Your task to perform on an android device: change your default location settings in chrome Image 0: 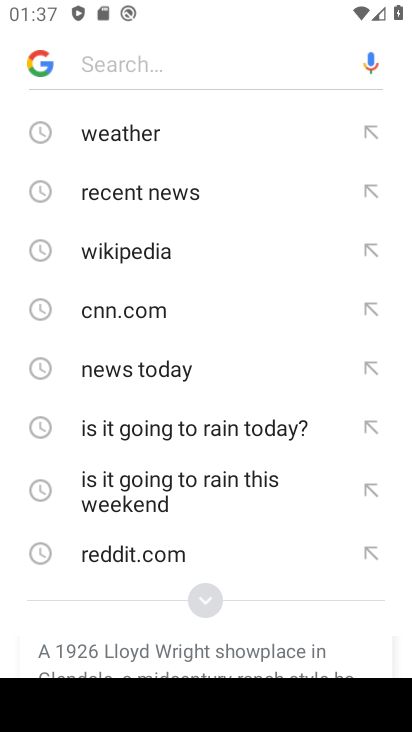
Step 0: press home button
Your task to perform on an android device: change your default location settings in chrome Image 1: 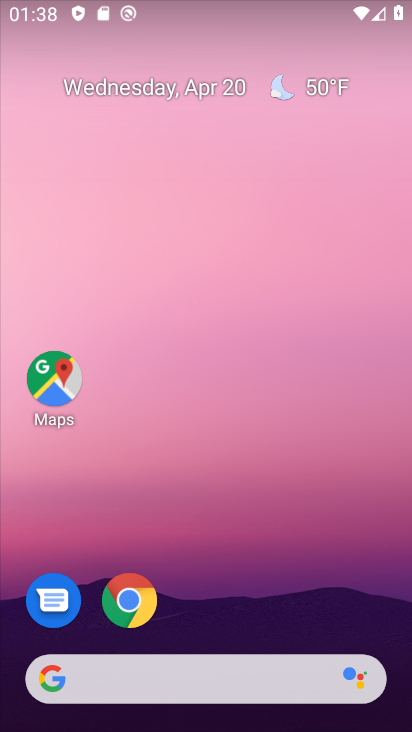
Step 1: click (131, 604)
Your task to perform on an android device: change your default location settings in chrome Image 2: 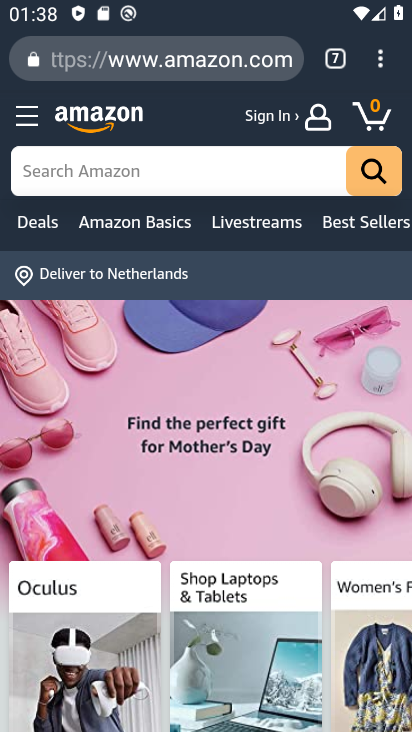
Step 2: click (384, 64)
Your task to perform on an android device: change your default location settings in chrome Image 3: 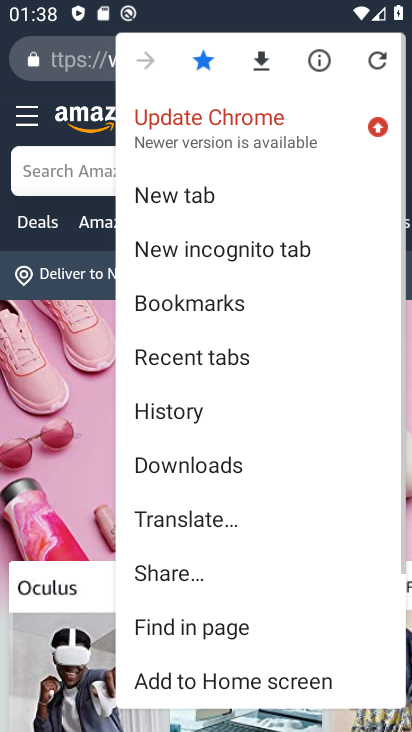
Step 3: drag from (239, 606) to (197, 119)
Your task to perform on an android device: change your default location settings in chrome Image 4: 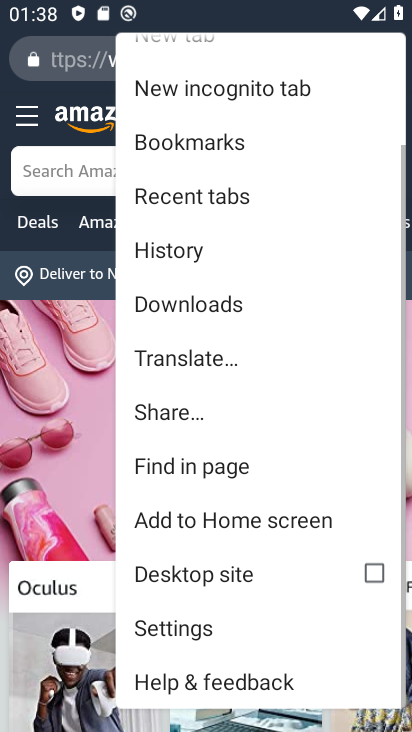
Step 4: click (172, 632)
Your task to perform on an android device: change your default location settings in chrome Image 5: 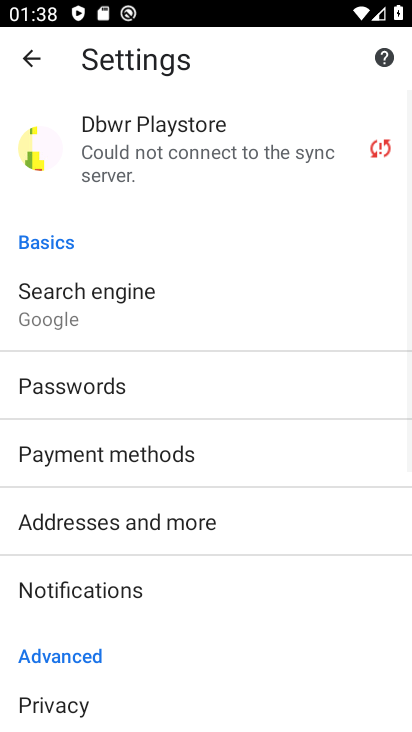
Step 5: drag from (163, 555) to (161, 177)
Your task to perform on an android device: change your default location settings in chrome Image 6: 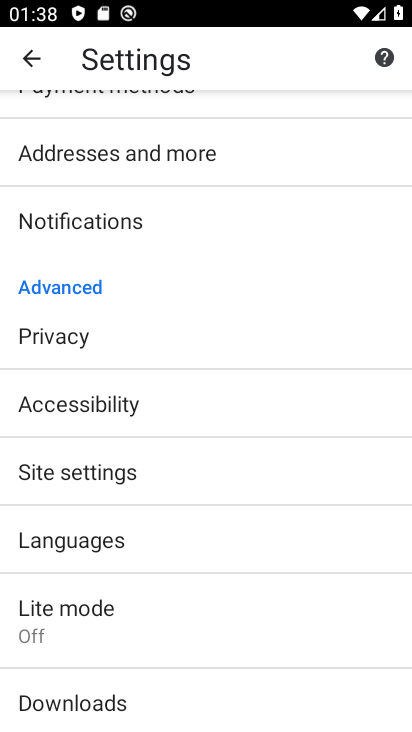
Step 6: drag from (132, 478) to (151, 150)
Your task to perform on an android device: change your default location settings in chrome Image 7: 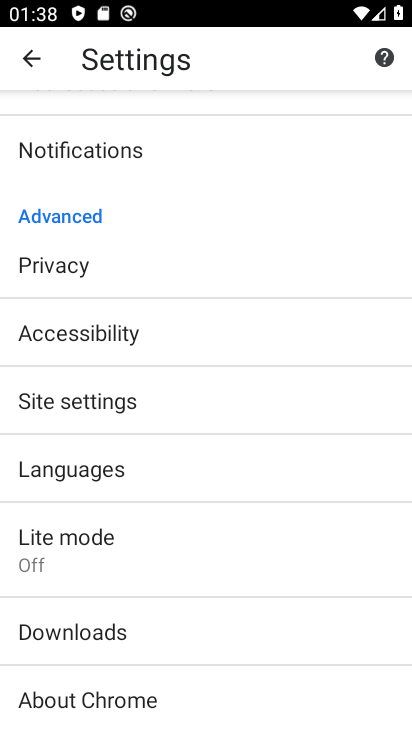
Step 7: click (145, 404)
Your task to perform on an android device: change your default location settings in chrome Image 8: 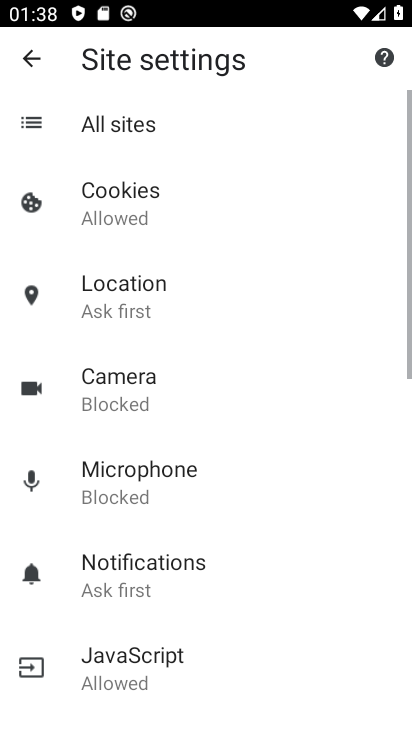
Step 8: click (149, 285)
Your task to perform on an android device: change your default location settings in chrome Image 9: 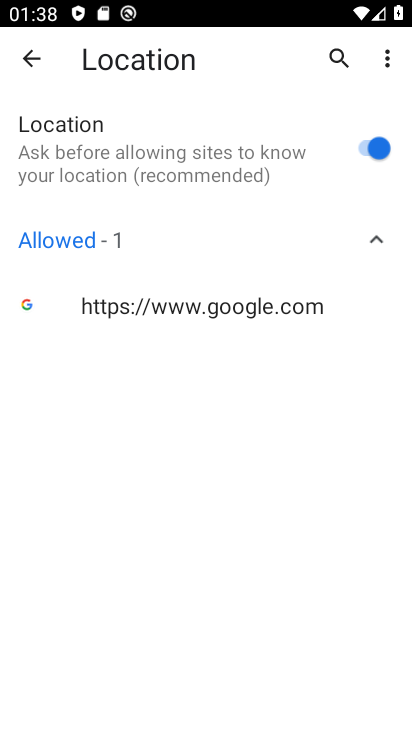
Step 9: click (363, 144)
Your task to perform on an android device: change your default location settings in chrome Image 10: 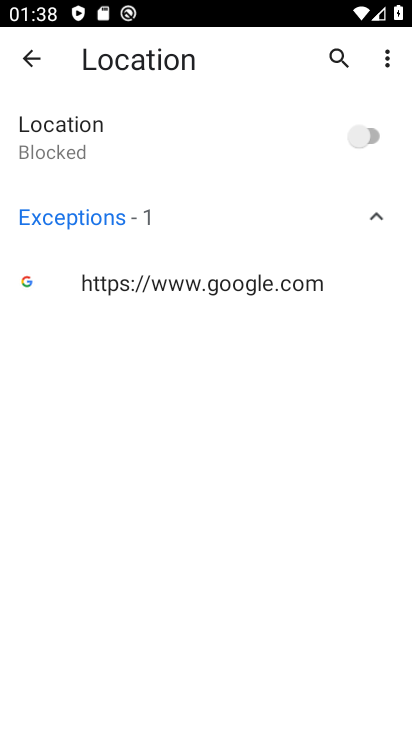
Step 10: task complete